Your task to perform on an android device: turn off notifications in google photos Image 0: 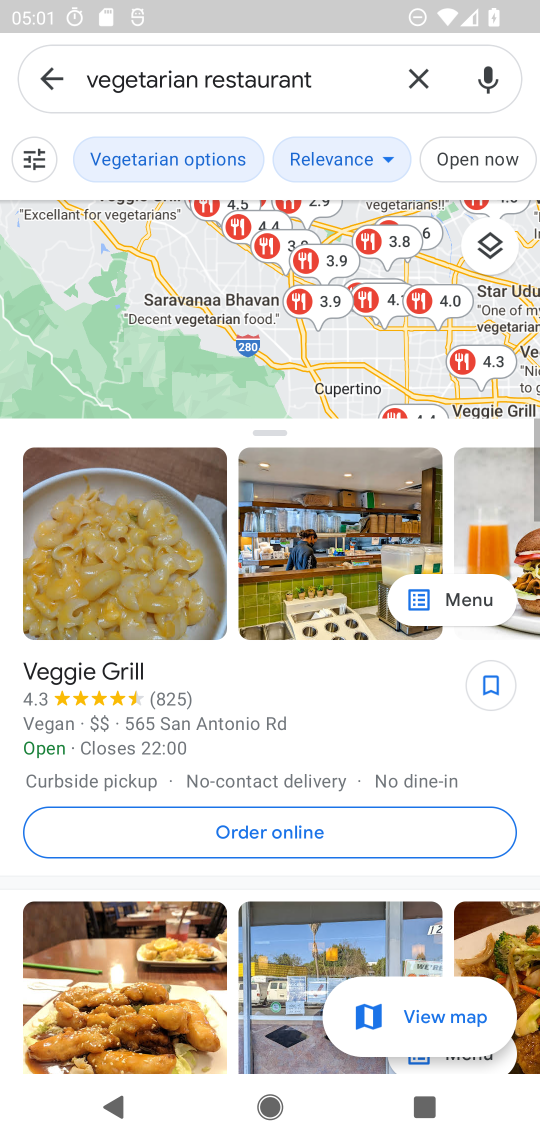
Step 0: press home button
Your task to perform on an android device: turn off notifications in google photos Image 1: 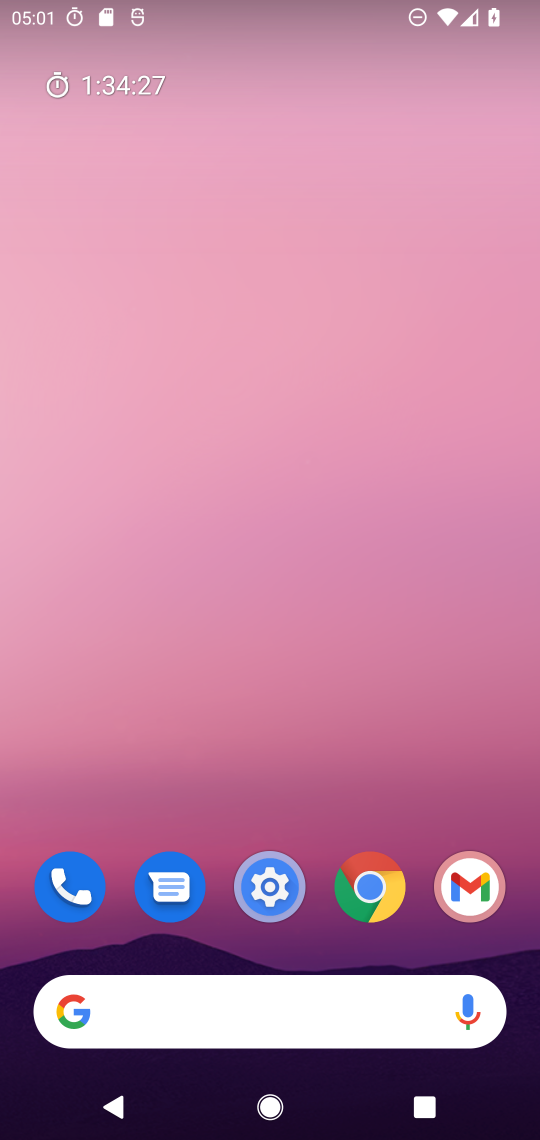
Step 1: drag from (409, 754) to (414, 333)
Your task to perform on an android device: turn off notifications in google photos Image 2: 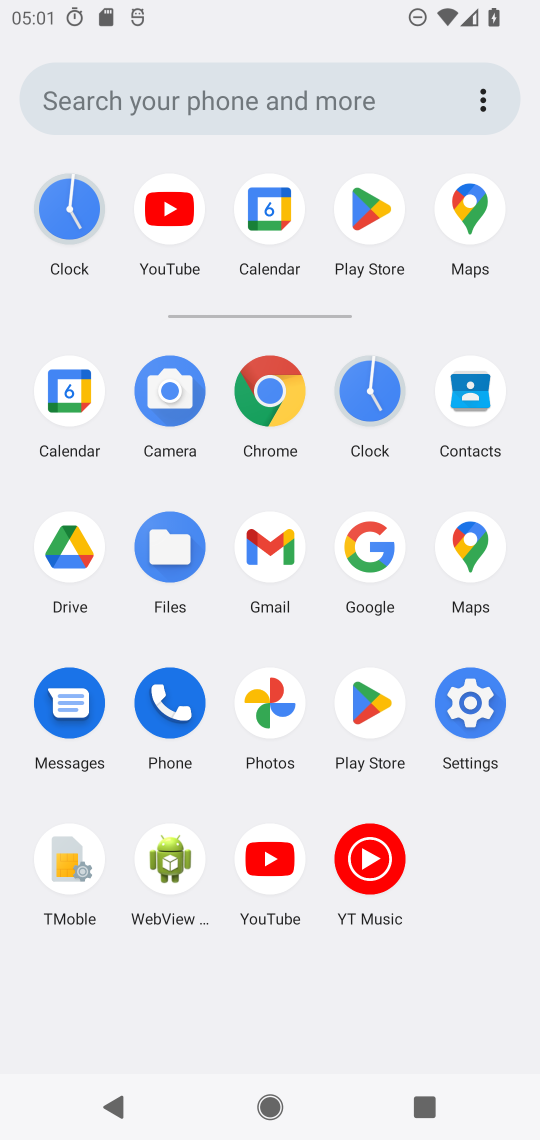
Step 2: click (268, 699)
Your task to perform on an android device: turn off notifications in google photos Image 3: 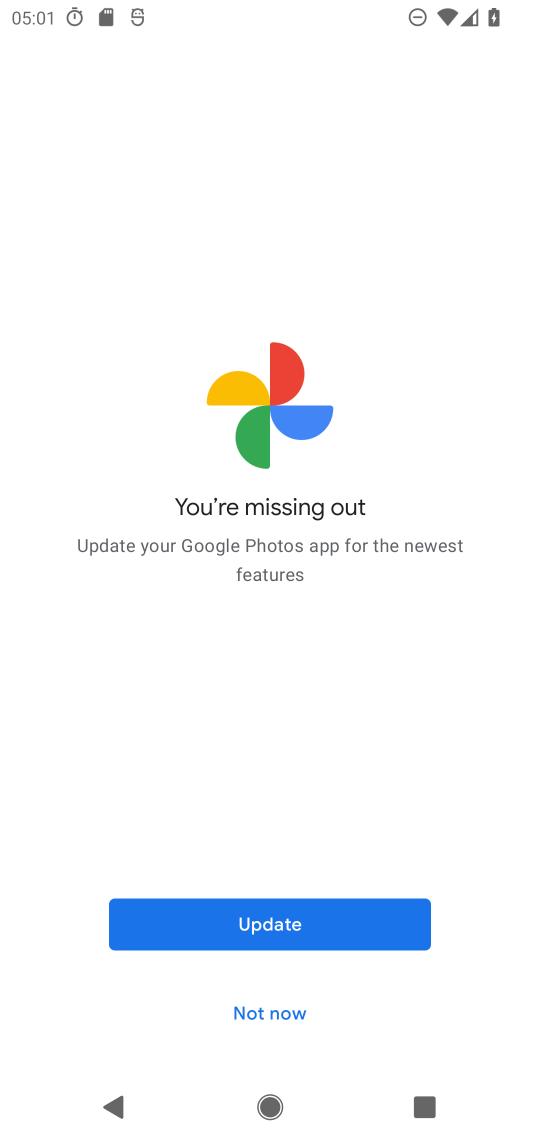
Step 3: click (277, 1007)
Your task to perform on an android device: turn off notifications in google photos Image 4: 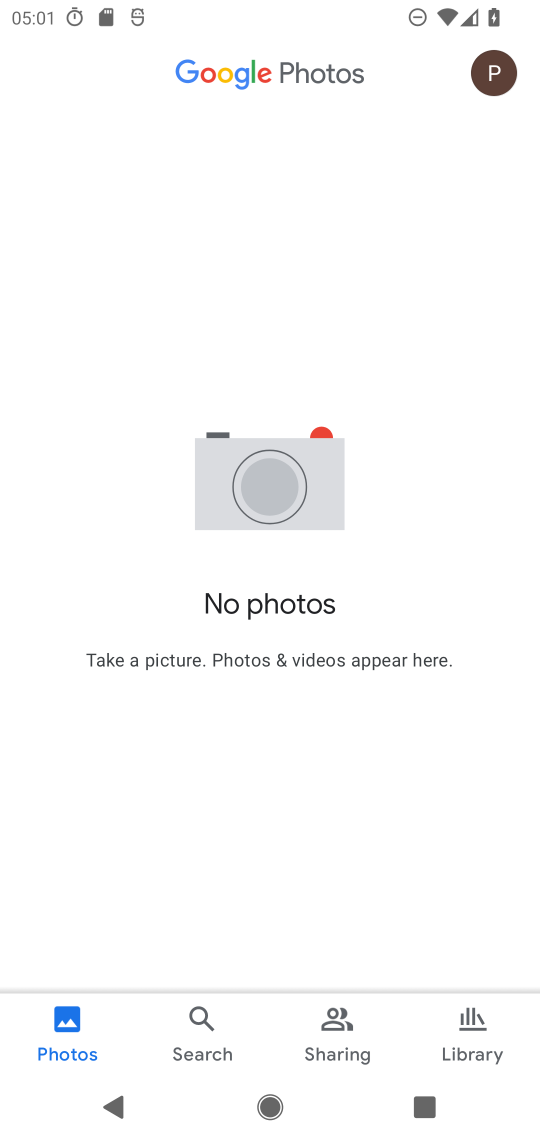
Step 4: click (492, 68)
Your task to perform on an android device: turn off notifications in google photos Image 5: 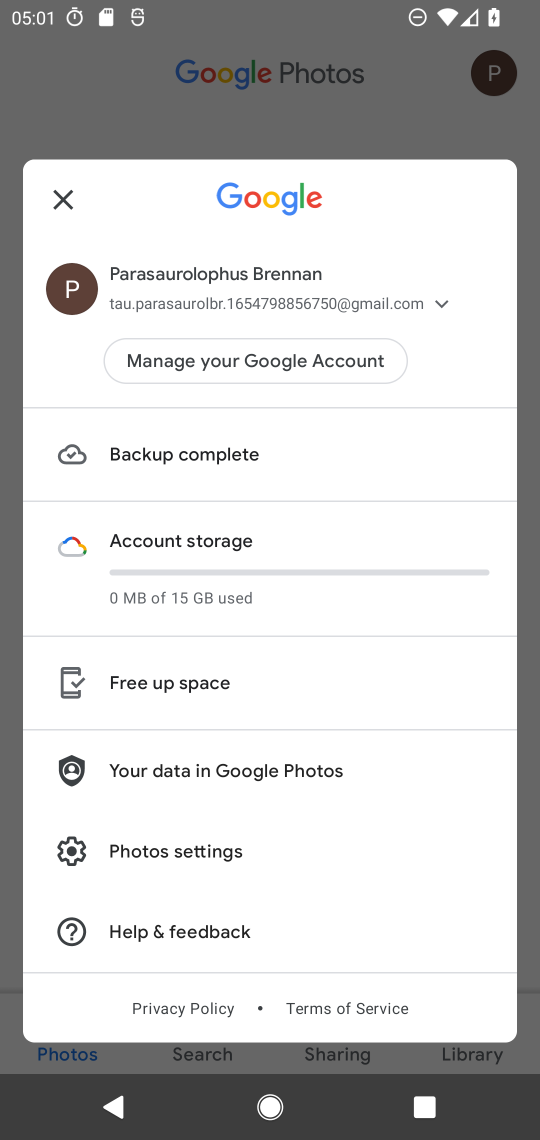
Step 5: click (241, 842)
Your task to perform on an android device: turn off notifications in google photos Image 6: 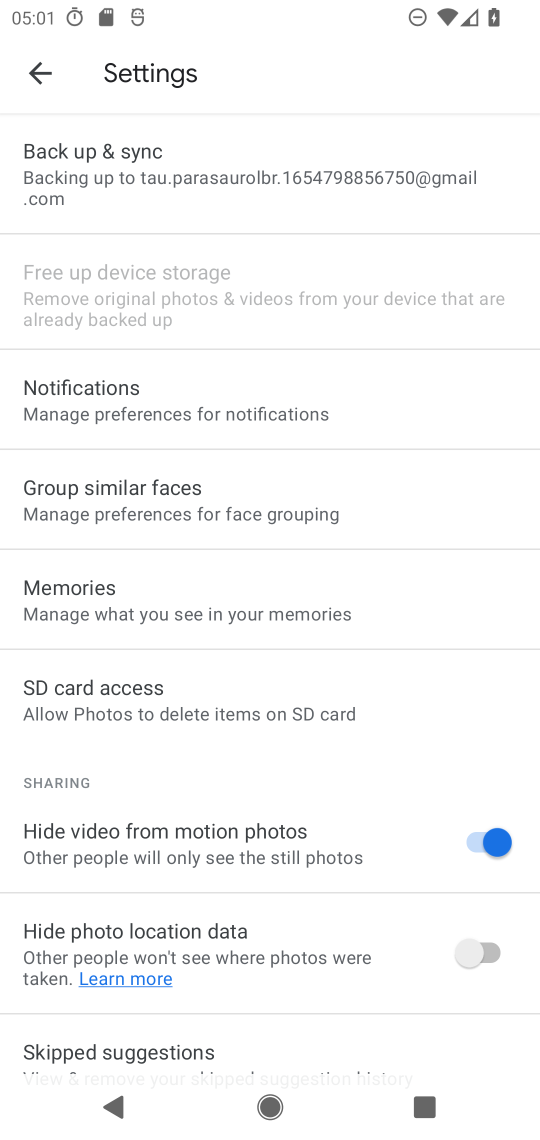
Step 6: click (290, 400)
Your task to perform on an android device: turn off notifications in google photos Image 7: 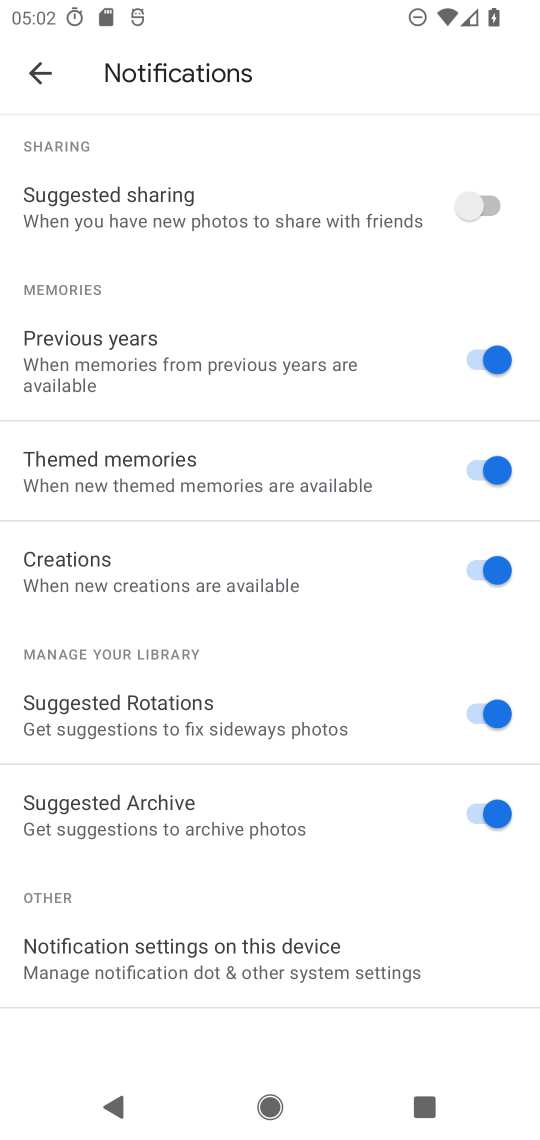
Step 7: click (288, 942)
Your task to perform on an android device: turn off notifications in google photos Image 8: 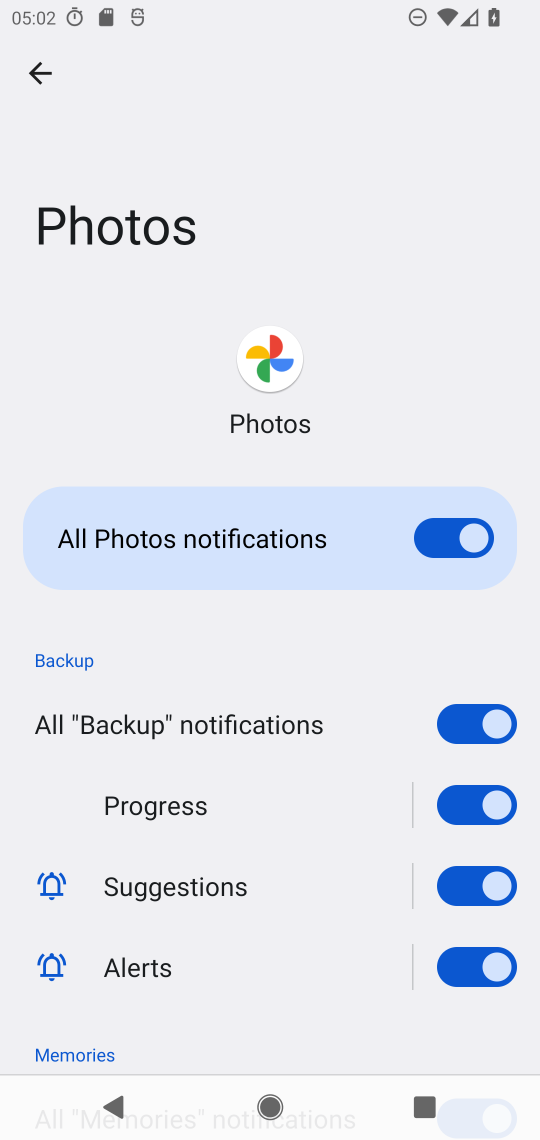
Step 8: click (437, 552)
Your task to perform on an android device: turn off notifications in google photos Image 9: 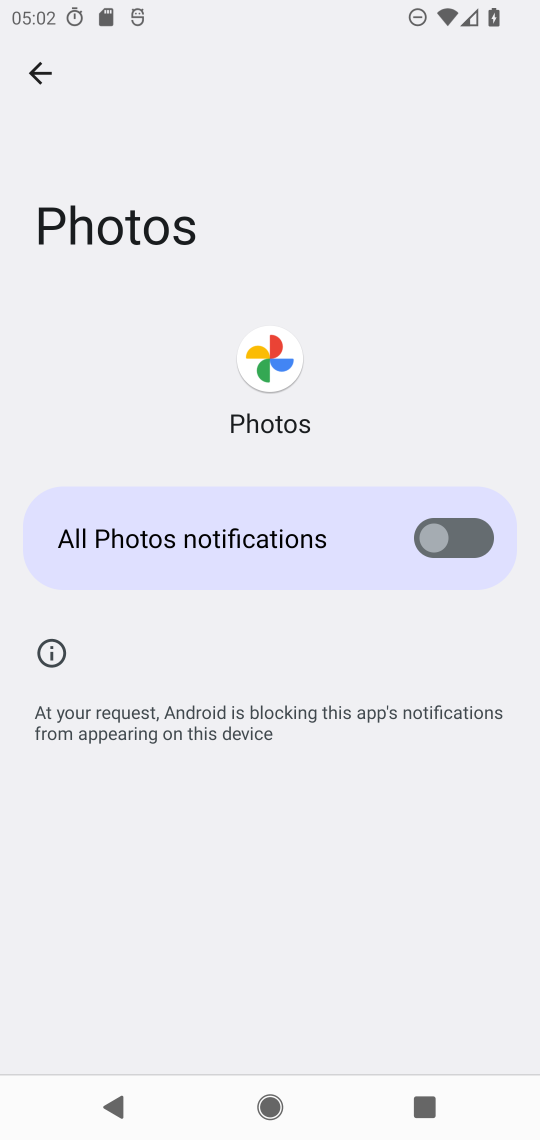
Step 9: task complete